Your task to perform on an android device: toggle airplane mode Image 0: 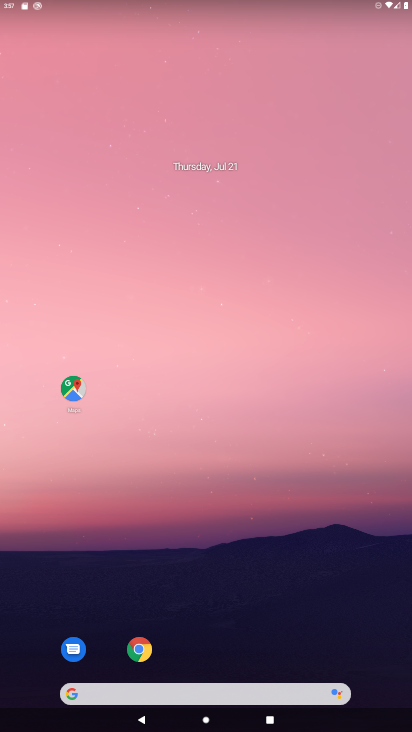
Step 0: press home button
Your task to perform on an android device: toggle airplane mode Image 1: 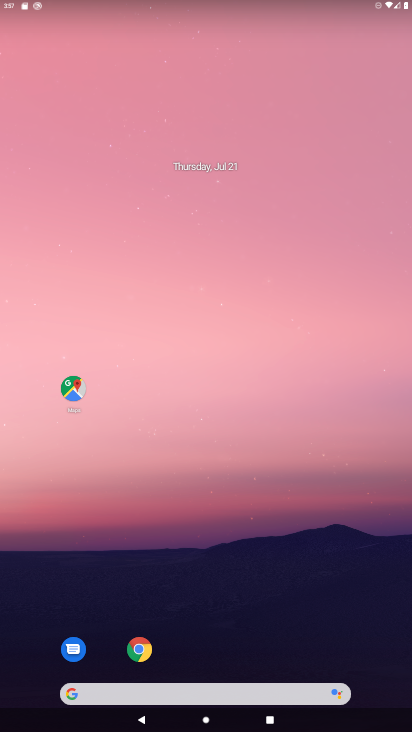
Step 1: drag from (252, 647) to (152, 147)
Your task to perform on an android device: toggle airplane mode Image 2: 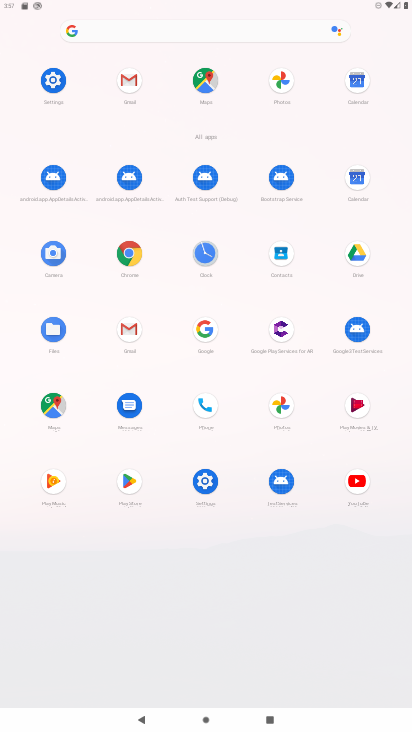
Step 2: click (52, 82)
Your task to perform on an android device: toggle airplane mode Image 3: 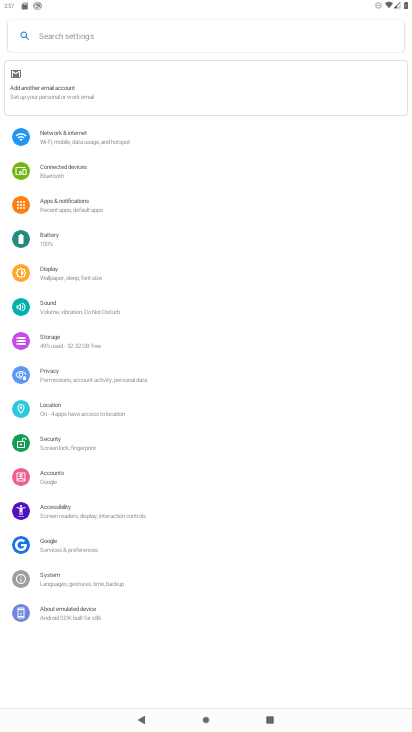
Step 3: click (84, 146)
Your task to perform on an android device: toggle airplane mode Image 4: 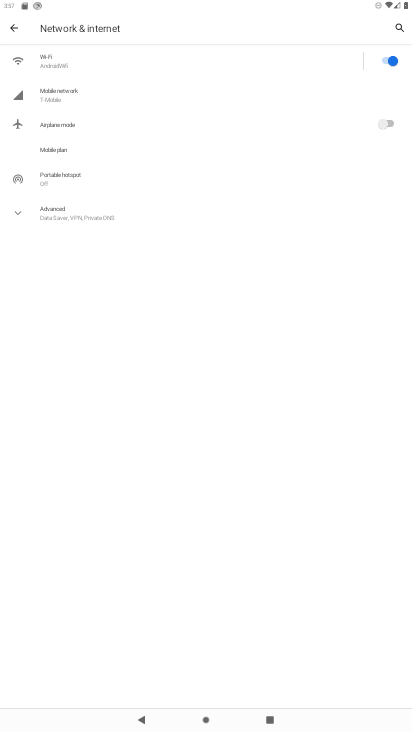
Step 4: click (391, 120)
Your task to perform on an android device: toggle airplane mode Image 5: 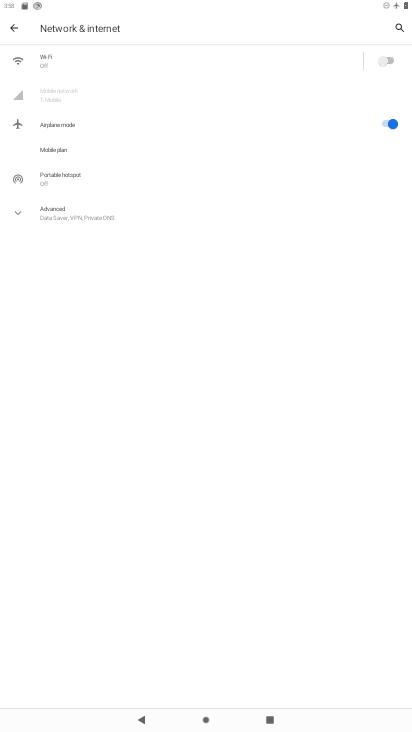
Step 5: task complete